Your task to perform on an android device: When is my next appointment? Image 0: 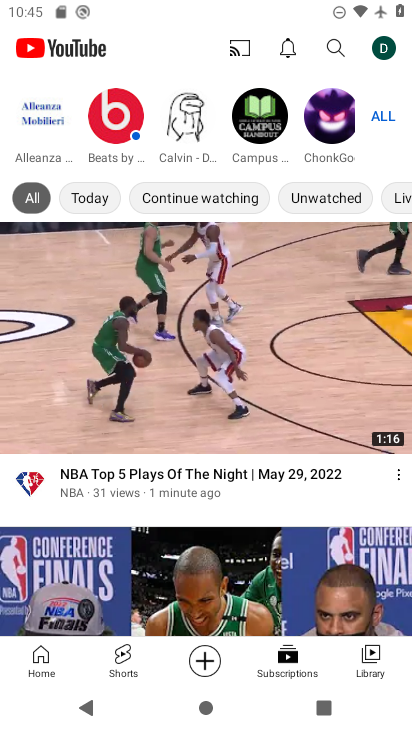
Step 0: press home button
Your task to perform on an android device: When is my next appointment? Image 1: 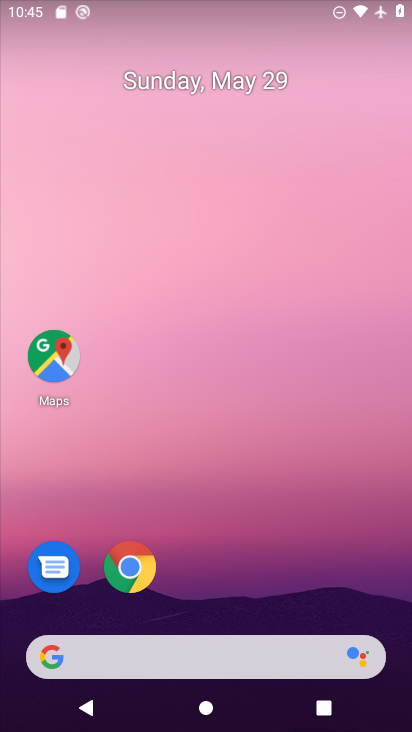
Step 1: drag from (379, 624) to (326, 41)
Your task to perform on an android device: When is my next appointment? Image 2: 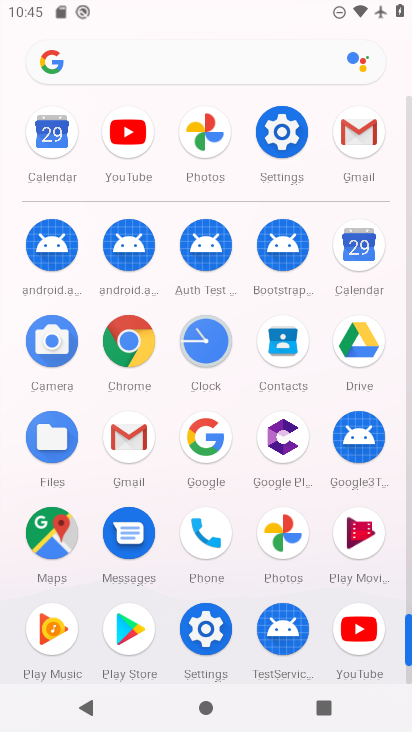
Step 2: click (356, 240)
Your task to perform on an android device: When is my next appointment? Image 3: 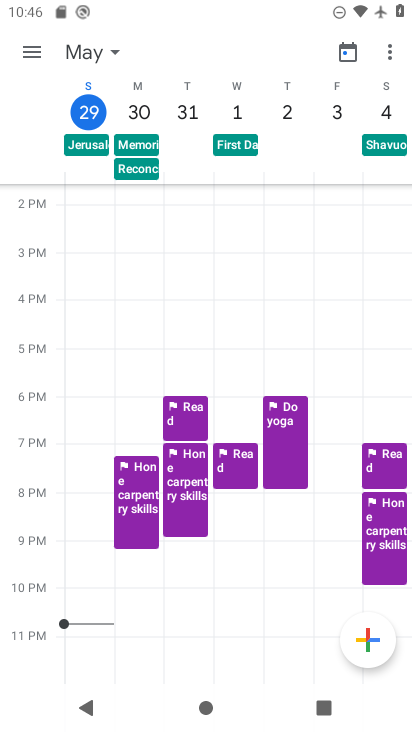
Step 3: click (28, 52)
Your task to perform on an android device: When is my next appointment? Image 4: 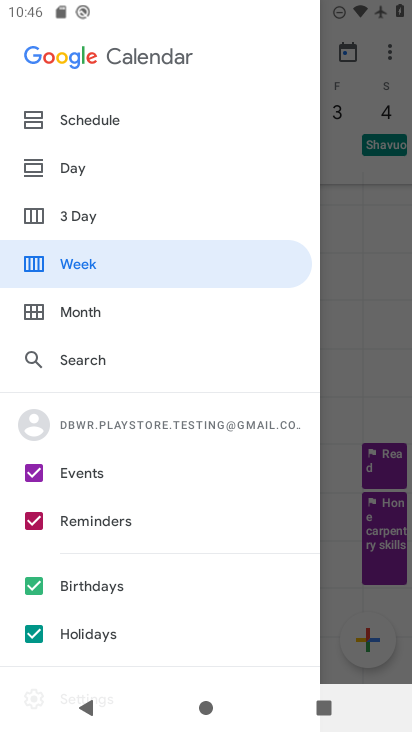
Step 4: click (102, 117)
Your task to perform on an android device: When is my next appointment? Image 5: 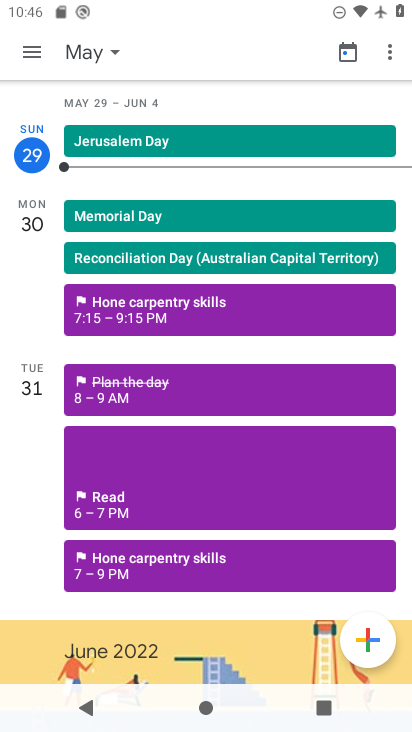
Step 5: task complete